Your task to perform on an android device: Search for a new desk on Ikea Image 0: 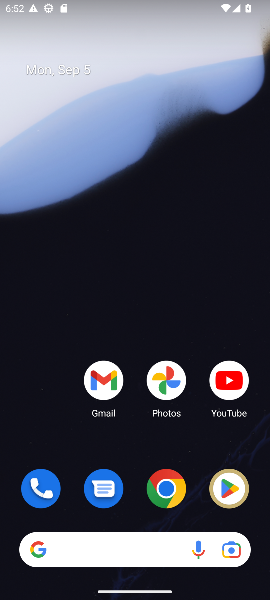
Step 0: click (172, 493)
Your task to perform on an android device: Search for a new desk on Ikea Image 1: 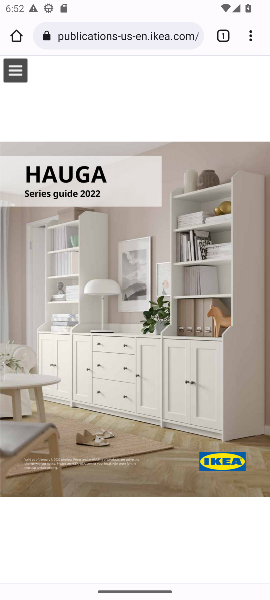
Step 1: click (108, 31)
Your task to perform on an android device: Search for a new desk on Ikea Image 2: 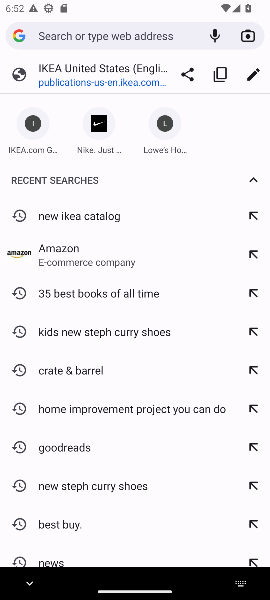
Step 2: type "ikea"
Your task to perform on an android device: Search for a new desk on Ikea Image 3: 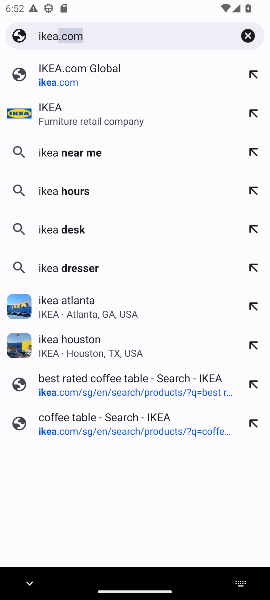
Step 3: press enter
Your task to perform on an android device: Search for a new desk on Ikea Image 4: 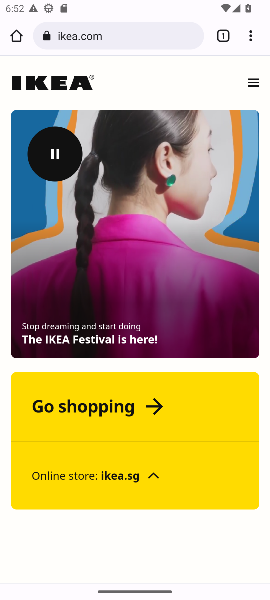
Step 4: click (134, 409)
Your task to perform on an android device: Search for a new desk on Ikea Image 5: 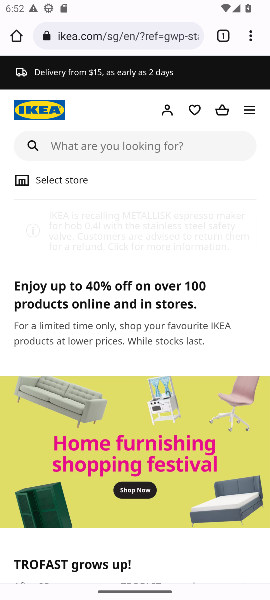
Step 5: click (122, 148)
Your task to perform on an android device: Search for a new desk on Ikea Image 6: 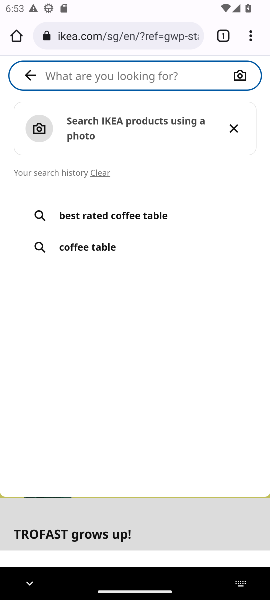
Step 6: type "new desk"
Your task to perform on an android device: Search for a new desk on Ikea Image 7: 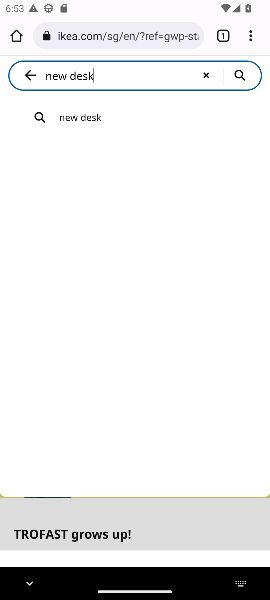
Step 7: press enter
Your task to perform on an android device: Search for a new desk on Ikea Image 8: 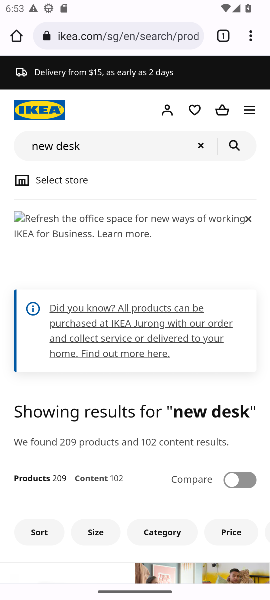
Step 8: click (40, 531)
Your task to perform on an android device: Search for a new desk on Ikea Image 9: 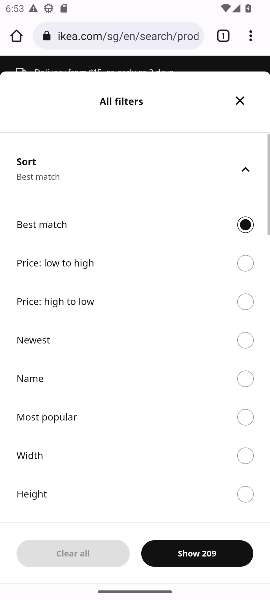
Step 9: click (32, 337)
Your task to perform on an android device: Search for a new desk on Ikea Image 10: 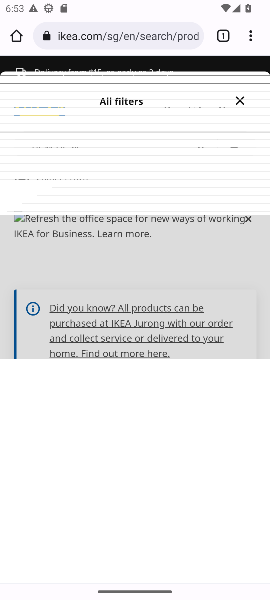
Step 10: drag from (171, 464) to (162, 323)
Your task to perform on an android device: Search for a new desk on Ikea Image 11: 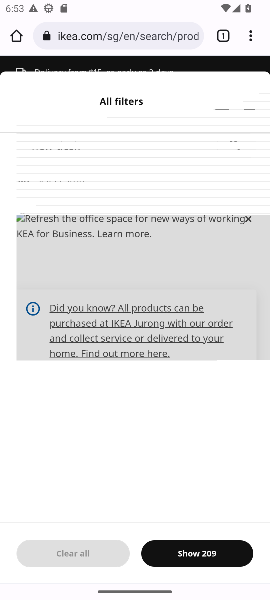
Step 11: click (211, 559)
Your task to perform on an android device: Search for a new desk on Ikea Image 12: 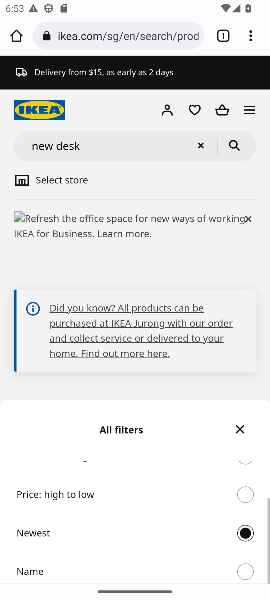
Step 12: task complete